Your task to perform on an android device: Clear the cart on ebay.com. Image 0: 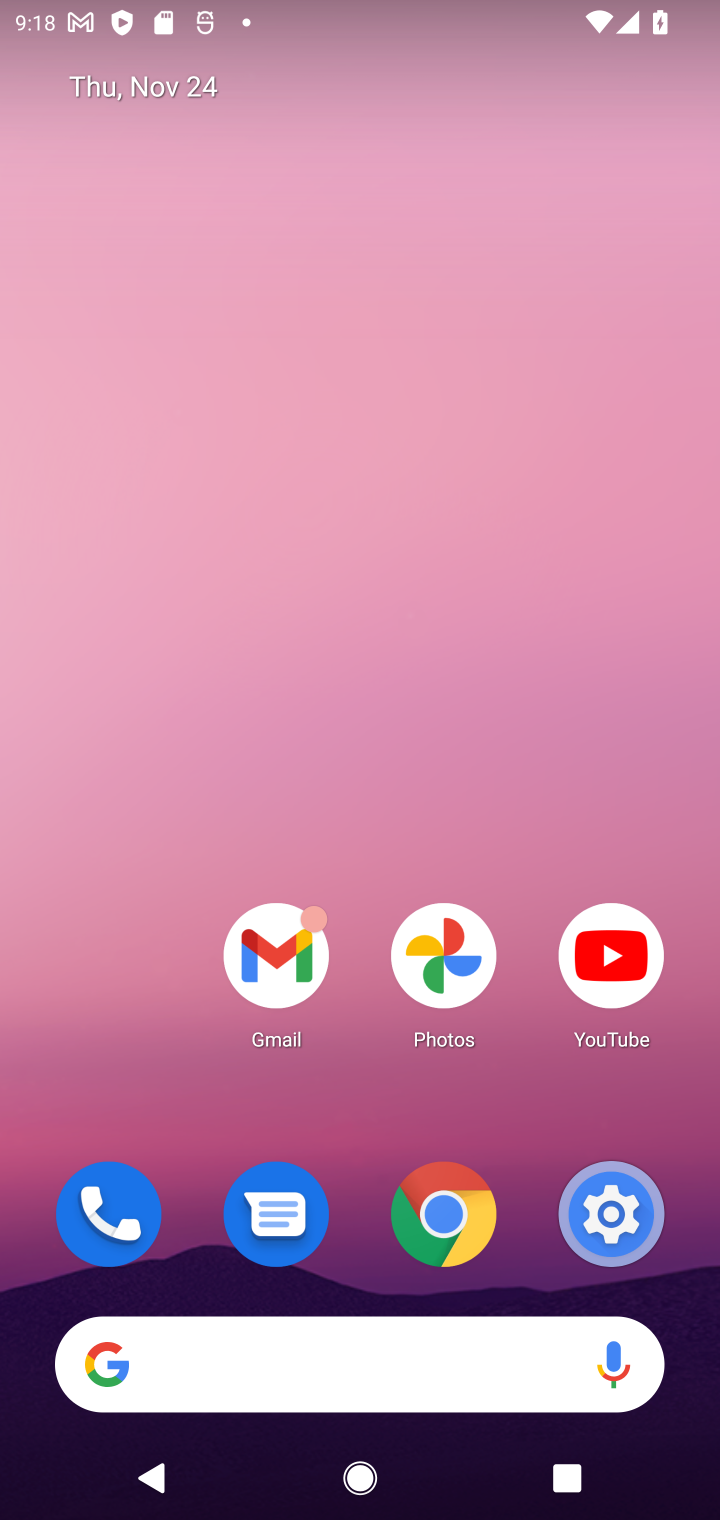
Step 0: click (433, 1326)
Your task to perform on an android device: Clear the cart on ebay.com. Image 1: 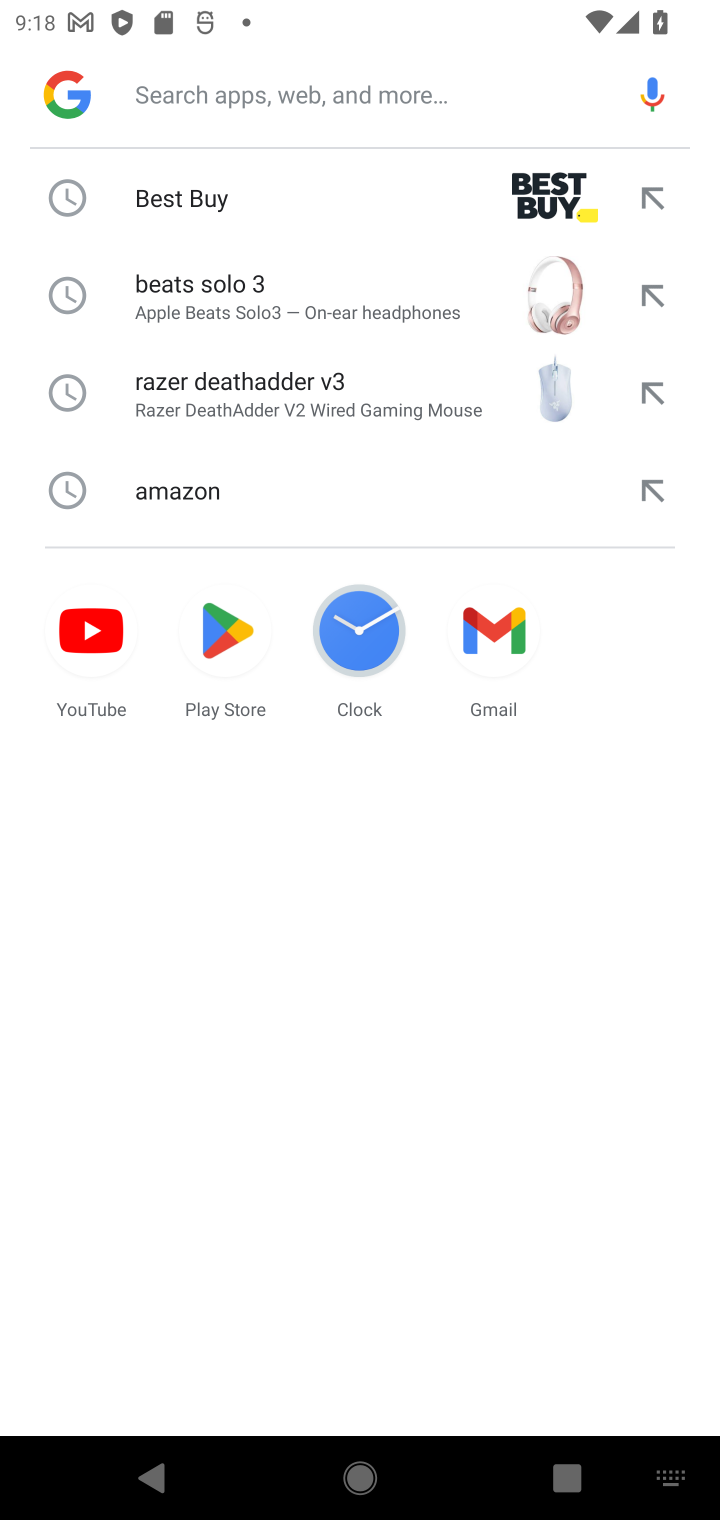
Step 1: type "ebay.com"
Your task to perform on an android device: Clear the cart on ebay.com. Image 2: 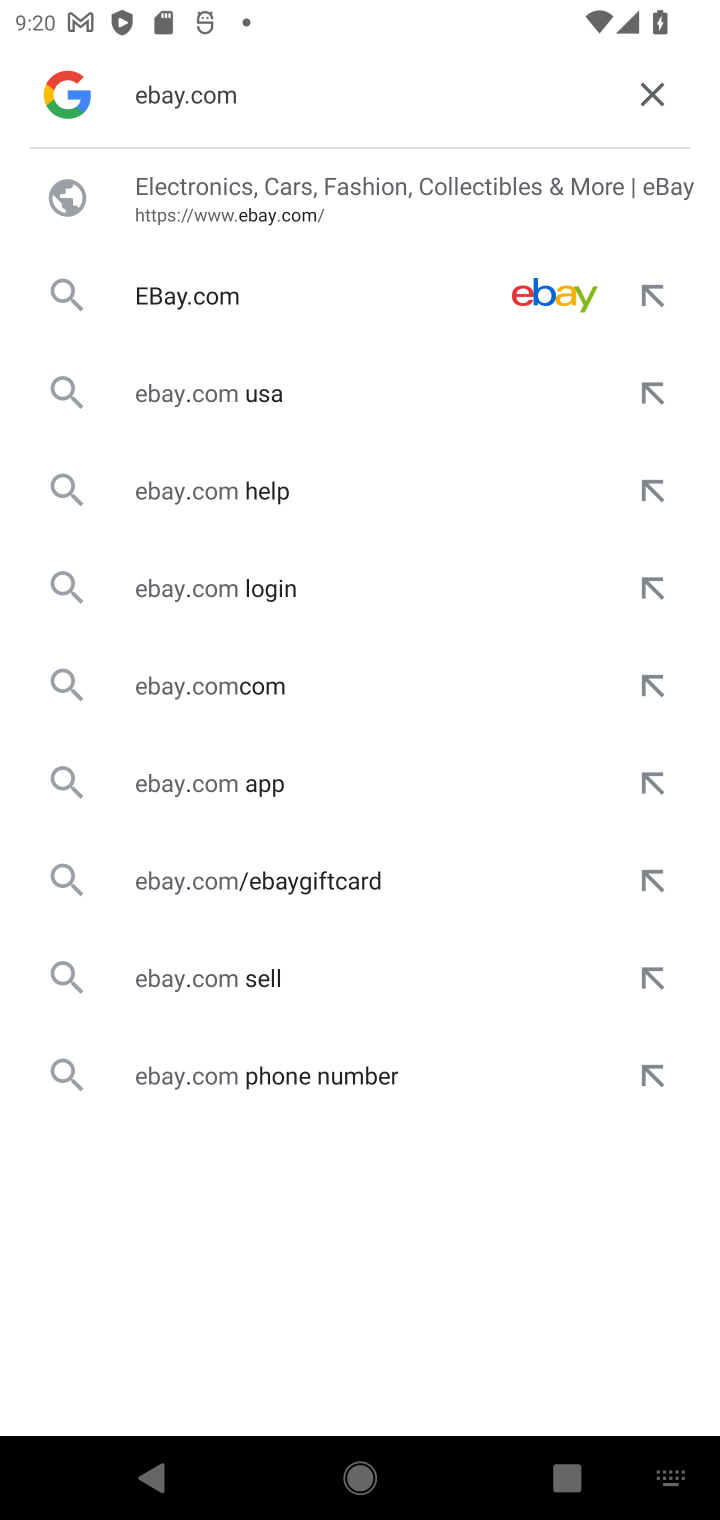
Step 2: click (242, 271)
Your task to perform on an android device: Clear the cart on ebay.com. Image 3: 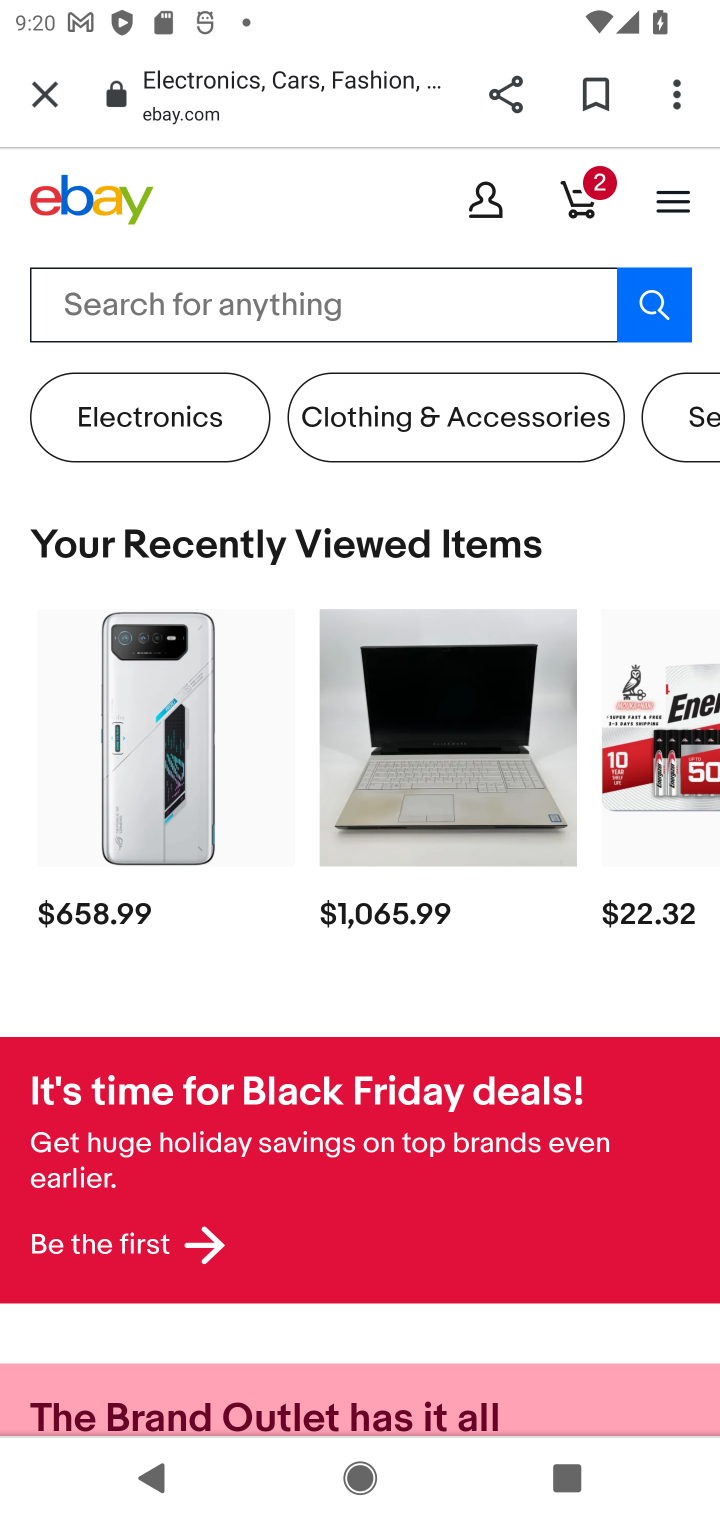
Step 3: click (228, 290)
Your task to perform on an android device: Clear the cart on ebay.com. Image 4: 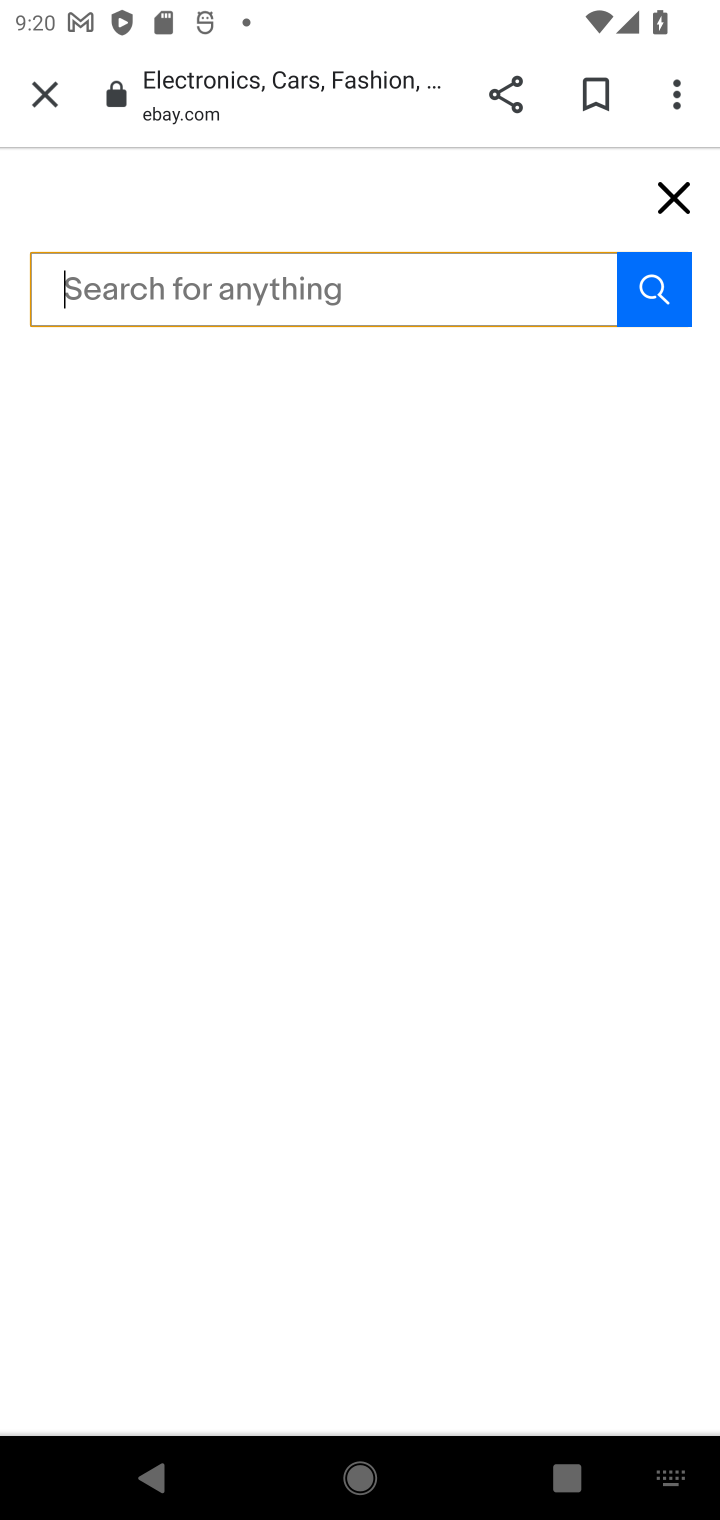
Step 4: click (659, 193)
Your task to perform on an android device: Clear the cart on ebay.com. Image 5: 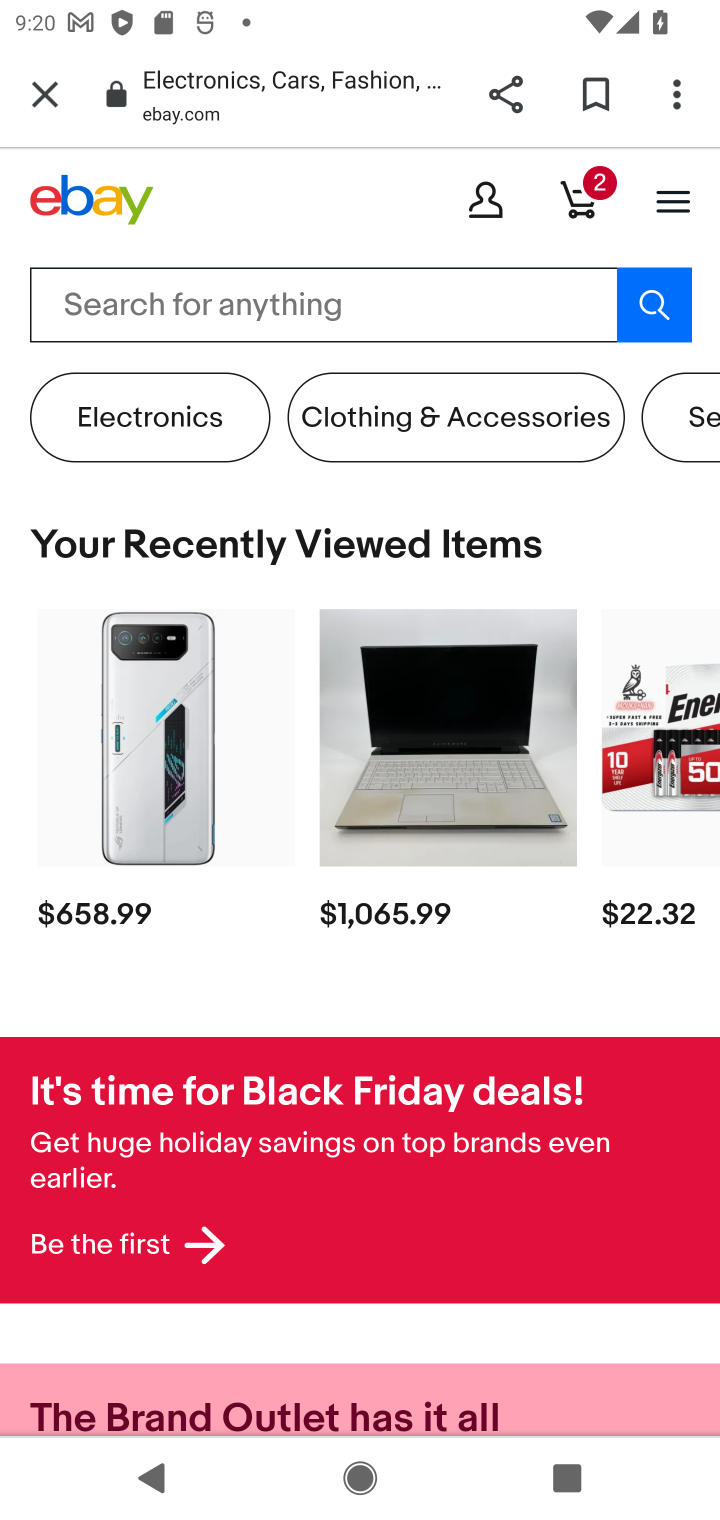
Step 5: click (227, 282)
Your task to perform on an android device: Clear the cart on ebay.com. Image 6: 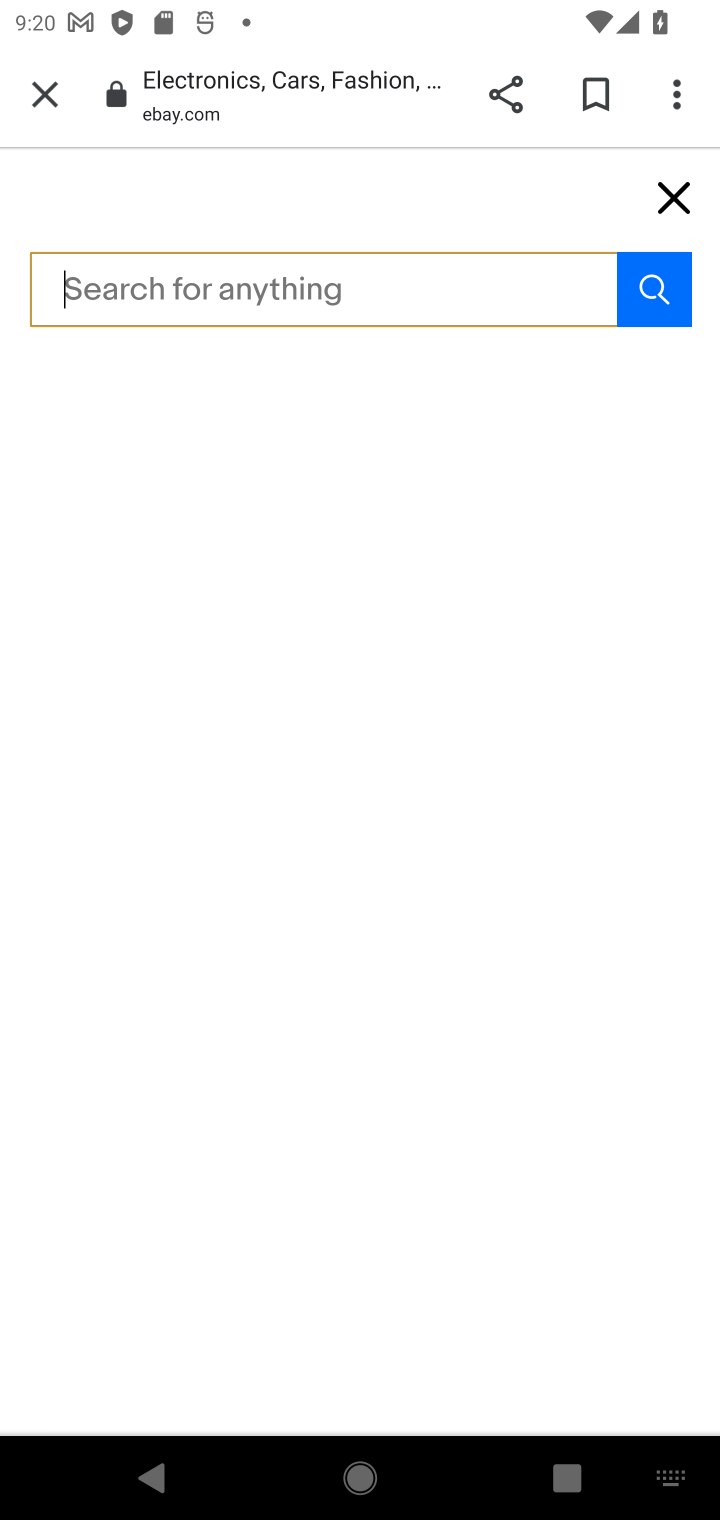
Step 6: type "ebay.com"
Your task to perform on an android device: Clear the cart on ebay.com. Image 7: 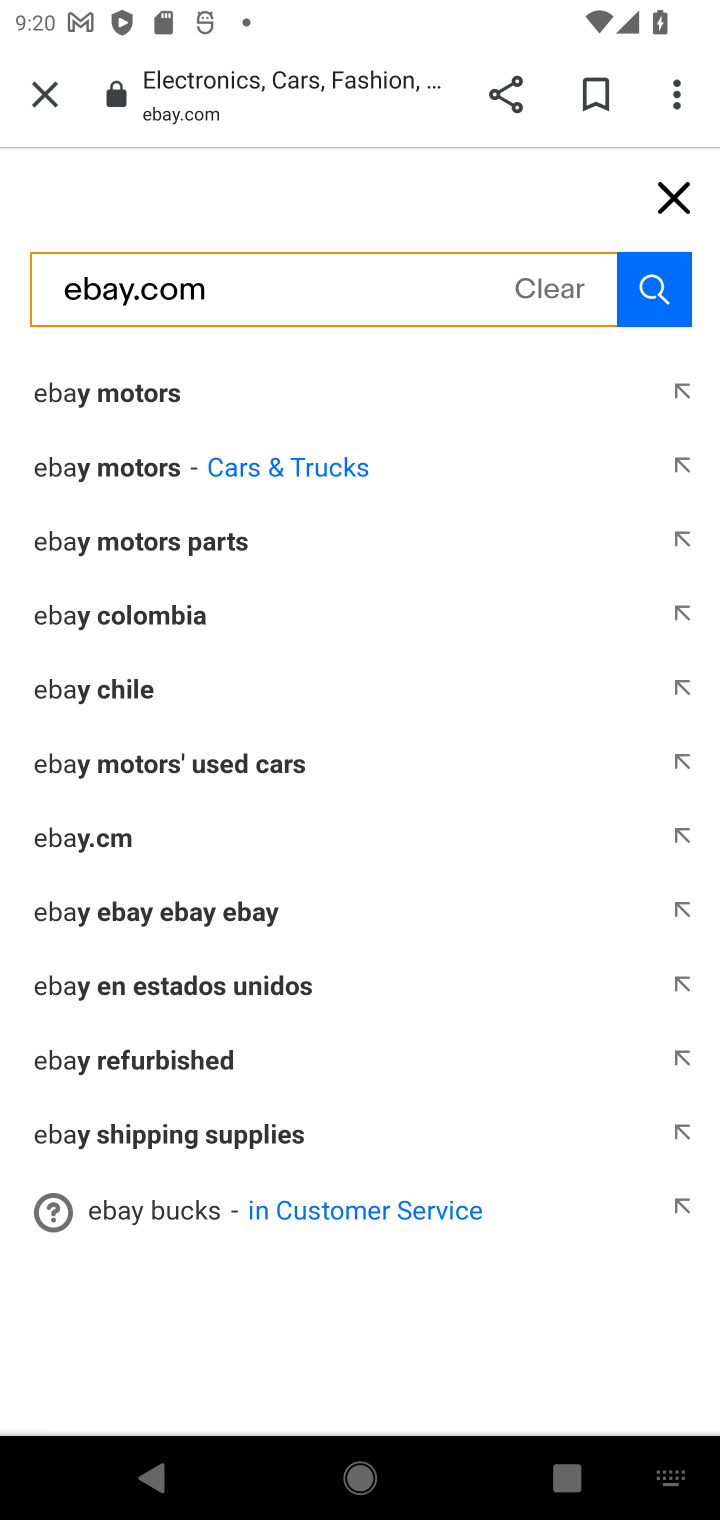
Step 7: click (700, 227)
Your task to perform on an android device: Clear the cart on ebay.com. Image 8: 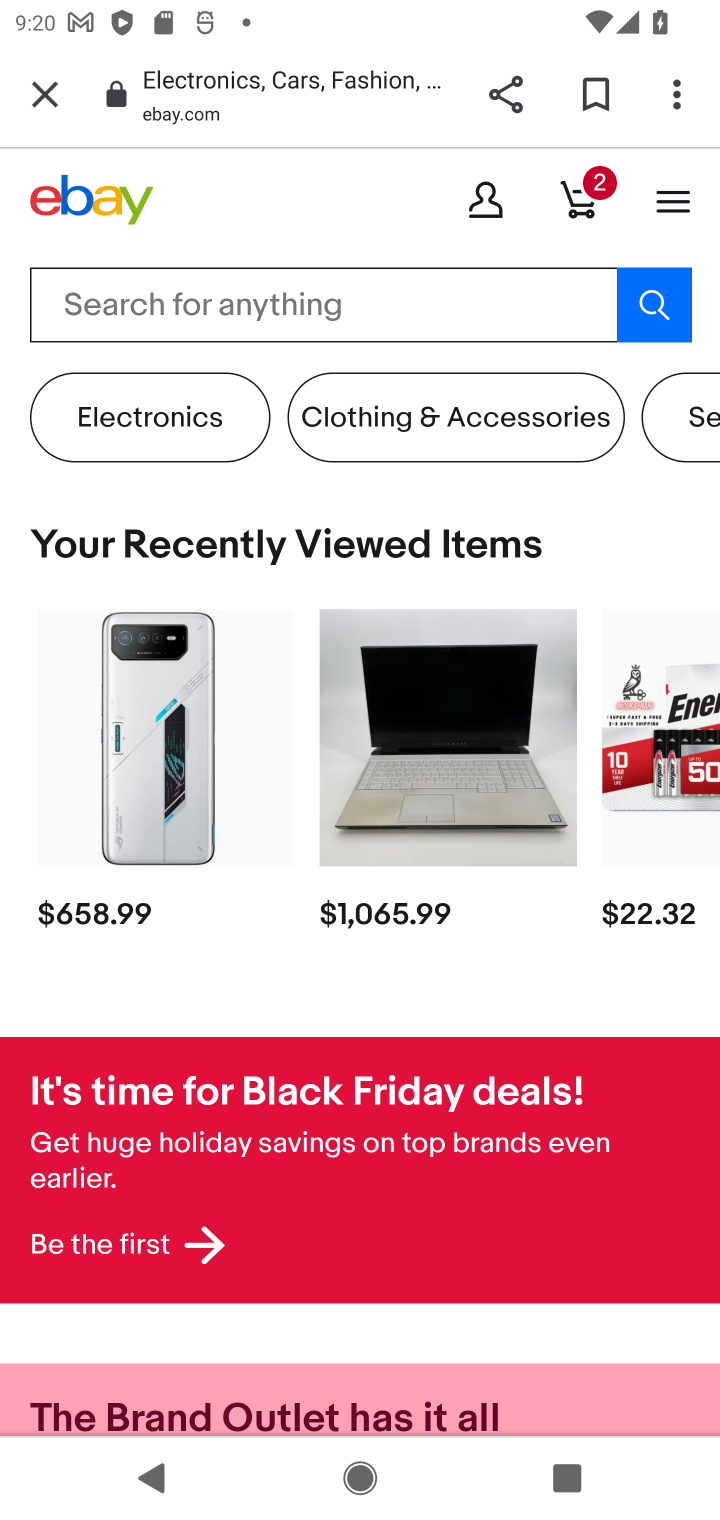
Step 8: click (557, 219)
Your task to perform on an android device: Clear the cart on ebay.com. Image 9: 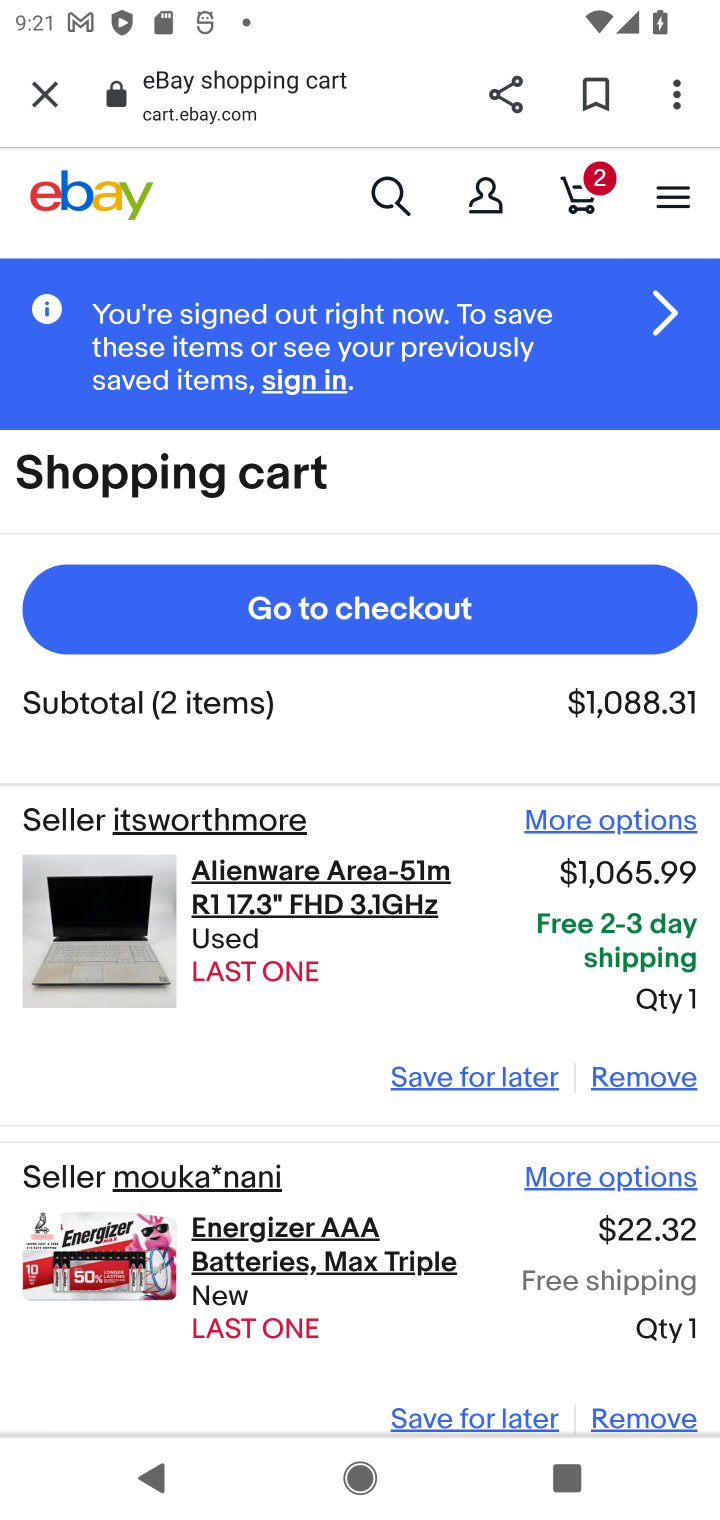
Step 9: click (679, 1070)
Your task to perform on an android device: Clear the cart on ebay.com. Image 10: 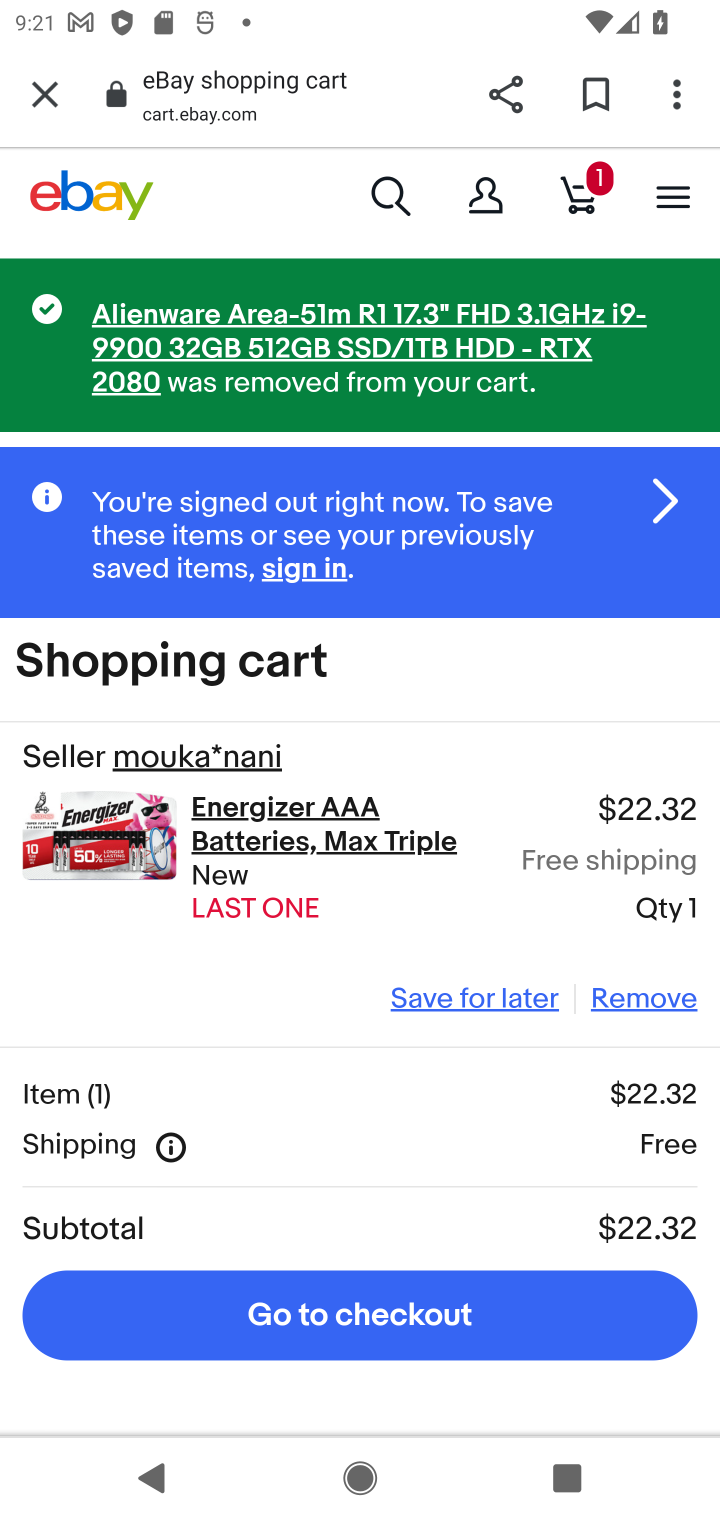
Step 10: click (618, 988)
Your task to perform on an android device: Clear the cart on ebay.com. Image 11: 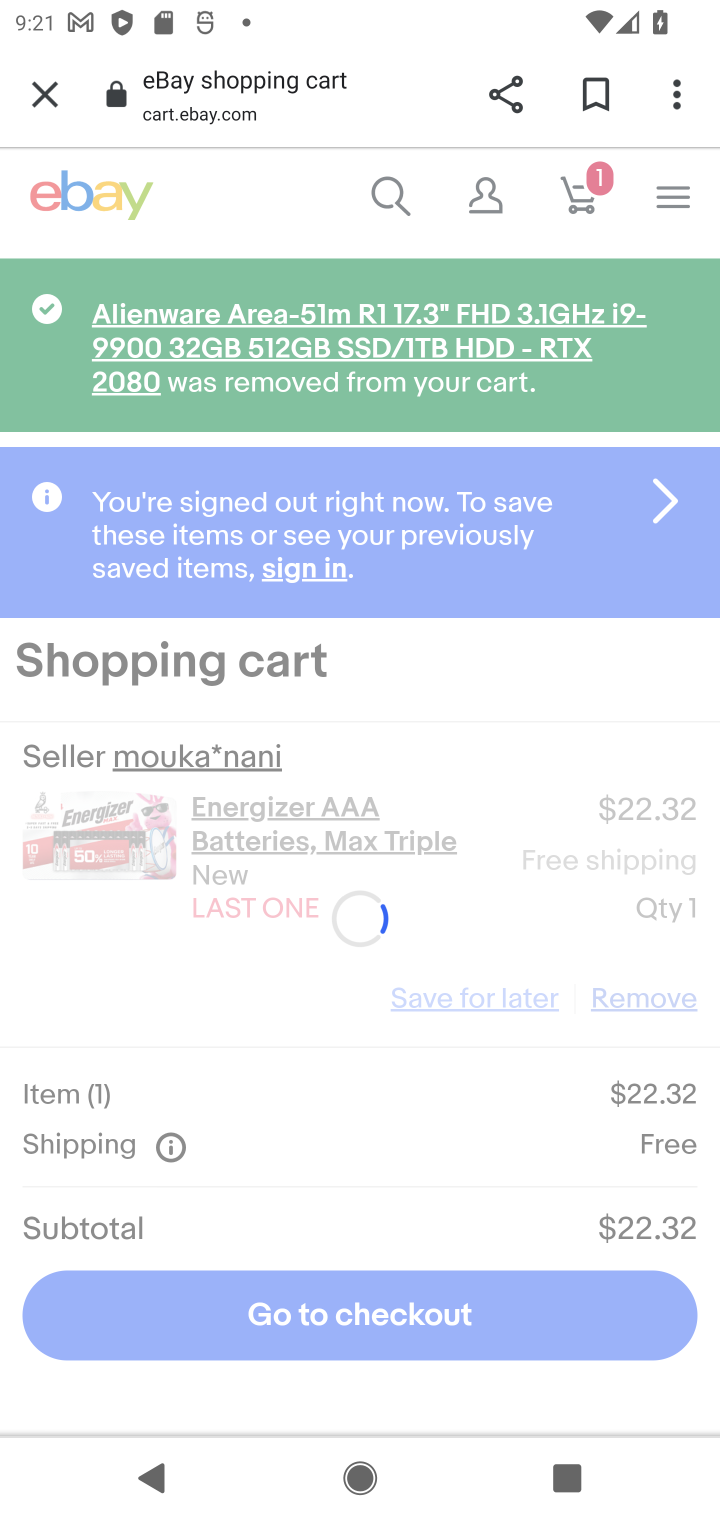
Step 11: task complete